Your task to perform on an android device: check battery use Image 0: 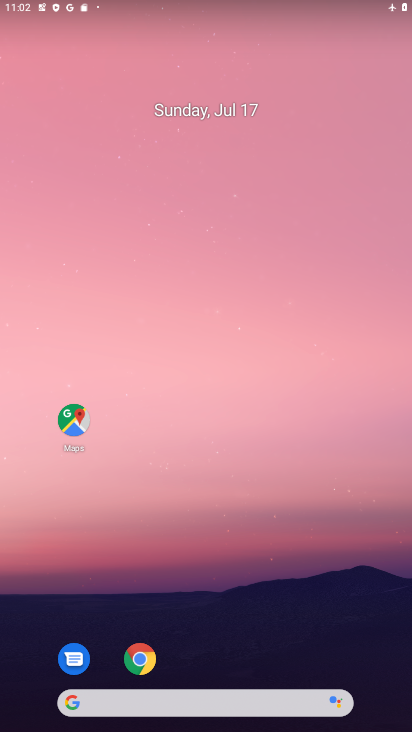
Step 0: drag from (183, 10) to (308, 590)
Your task to perform on an android device: check battery use Image 1: 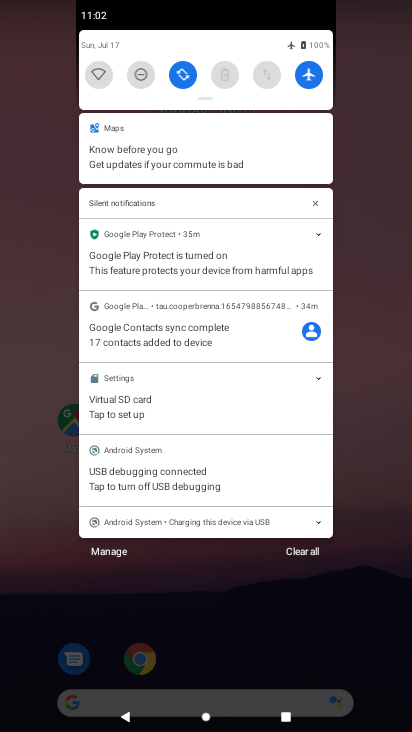
Step 1: click (224, 76)
Your task to perform on an android device: check battery use Image 2: 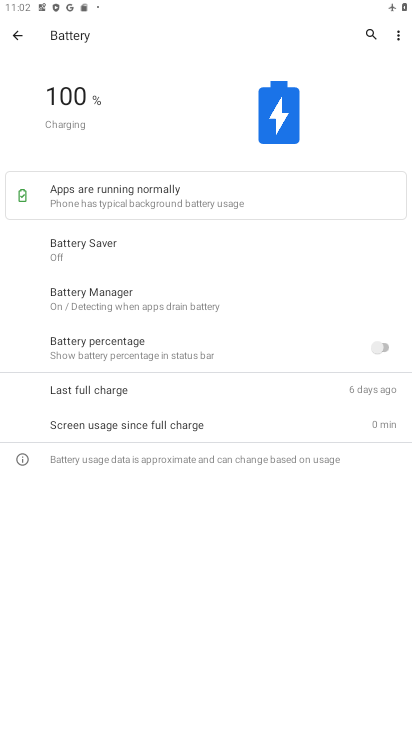
Step 2: task complete